Your task to perform on an android device: What is the recent news? Image 0: 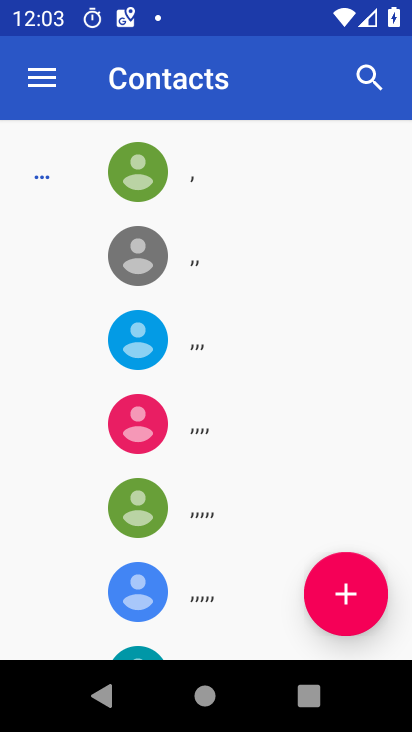
Step 0: press home button
Your task to perform on an android device: What is the recent news? Image 1: 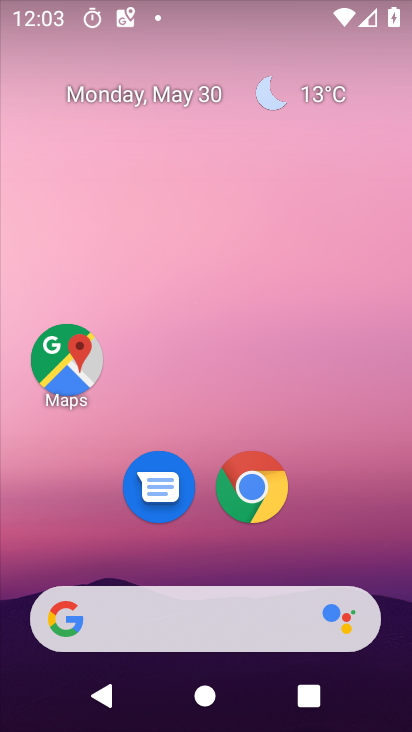
Step 1: task complete